Your task to perform on an android device: Do I have any events tomorrow? Image 0: 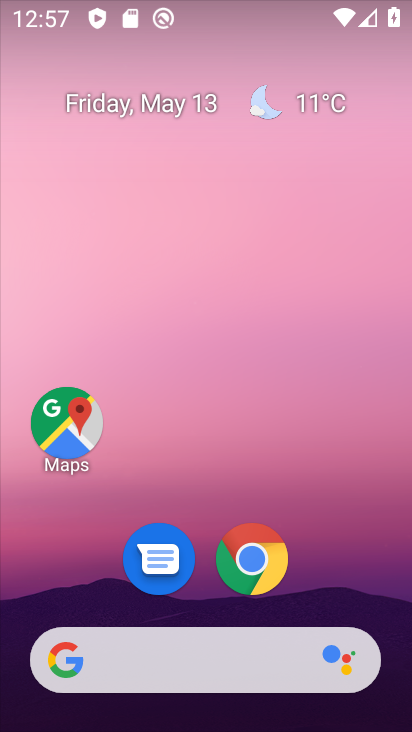
Step 0: click (349, 201)
Your task to perform on an android device: Do I have any events tomorrow? Image 1: 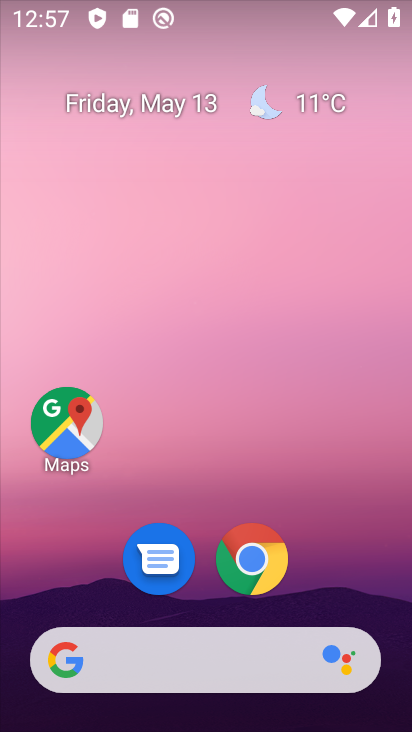
Step 1: drag from (401, 663) to (403, 434)
Your task to perform on an android device: Do I have any events tomorrow? Image 2: 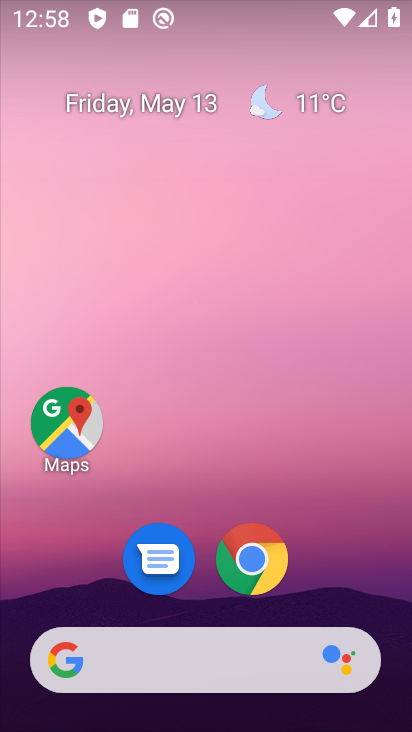
Step 2: drag from (392, 645) to (384, 333)
Your task to perform on an android device: Do I have any events tomorrow? Image 3: 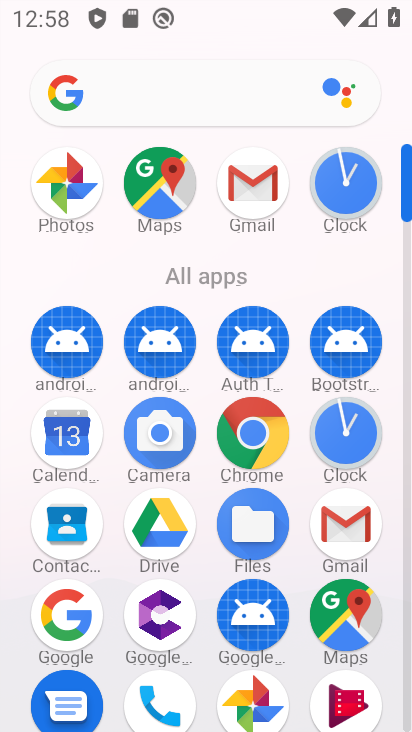
Step 3: click (65, 444)
Your task to perform on an android device: Do I have any events tomorrow? Image 4: 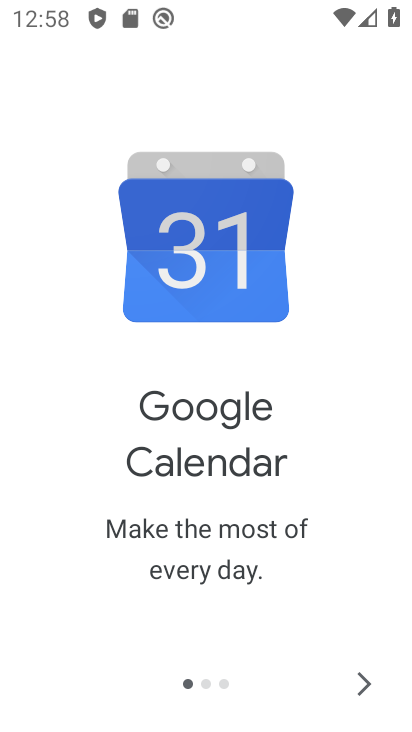
Step 4: click (356, 680)
Your task to perform on an android device: Do I have any events tomorrow? Image 5: 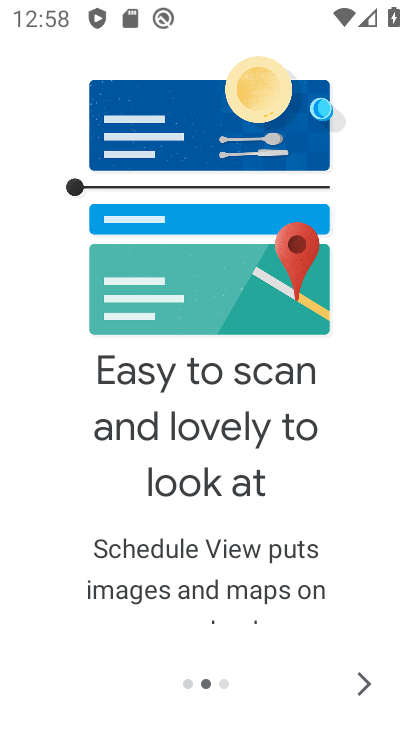
Step 5: click (356, 680)
Your task to perform on an android device: Do I have any events tomorrow? Image 6: 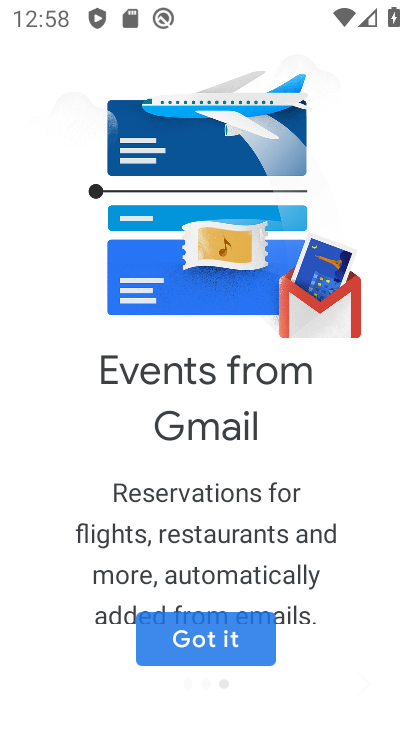
Step 6: click (356, 680)
Your task to perform on an android device: Do I have any events tomorrow? Image 7: 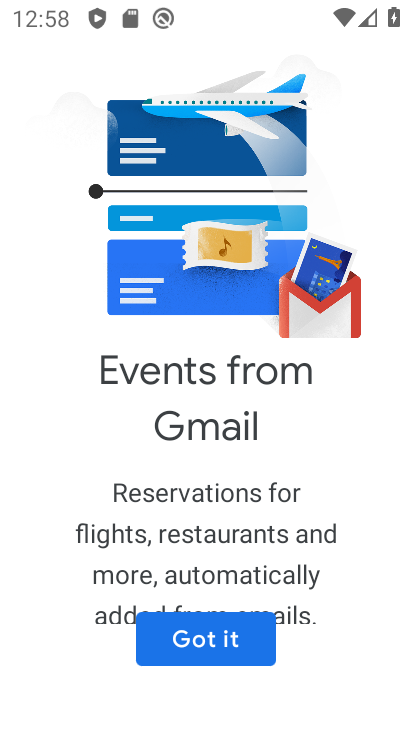
Step 7: click (237, 640)
Your task to perform on an android device: Do I have any events tomorrow? Image 8: 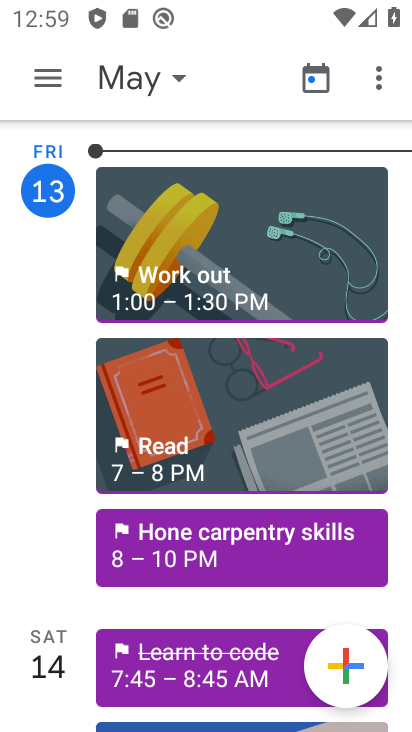
Step 8: click (176, 73)
Your task to perform on an android device: Do I have any events tomorrow? Image 9: 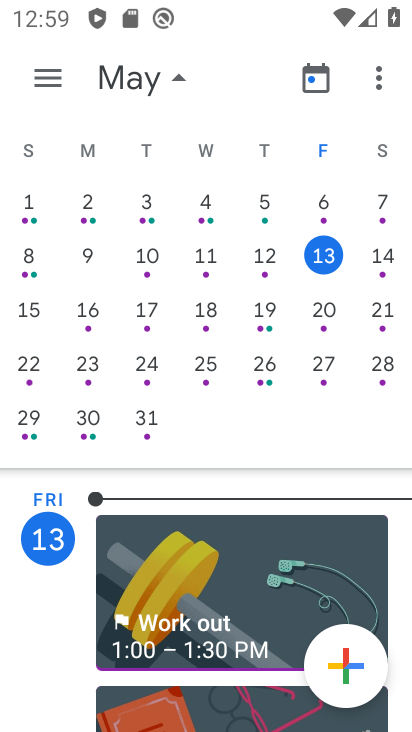
Step 9: click (379, 253)
Your task to perform on an android device: Do I have any events tomorrow? Image 10: 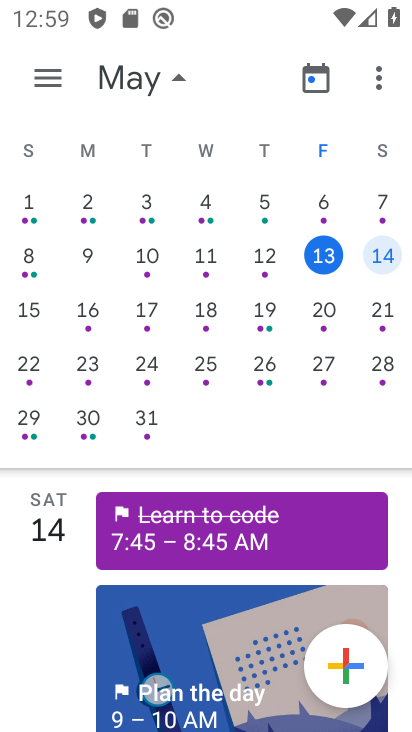
Step 10: click (379, 253)
Your task to perform on an android device: Do I have any events tomorrow? Image 11: 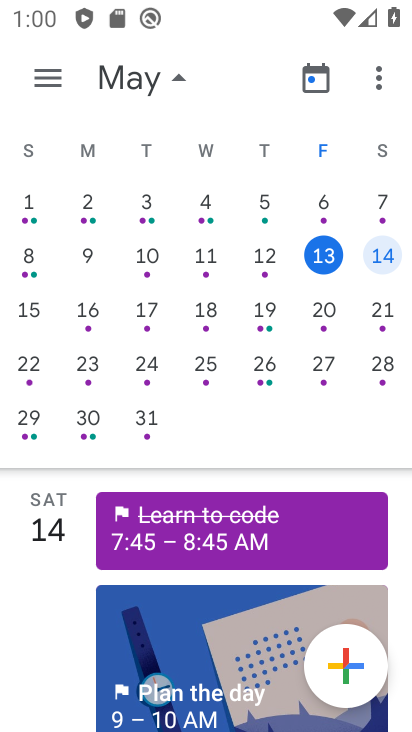
Step 11: task complete